Your task to perform on an android device: Go to Maps Image 0: 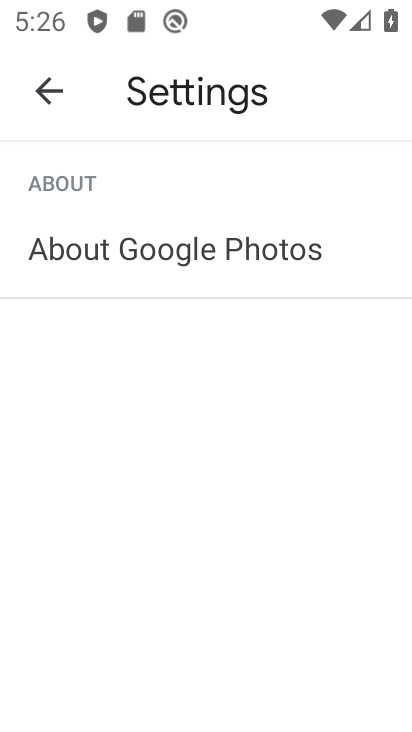
Step 0: press home button
Your task to perform on an android device: Go to Maps Image 1: 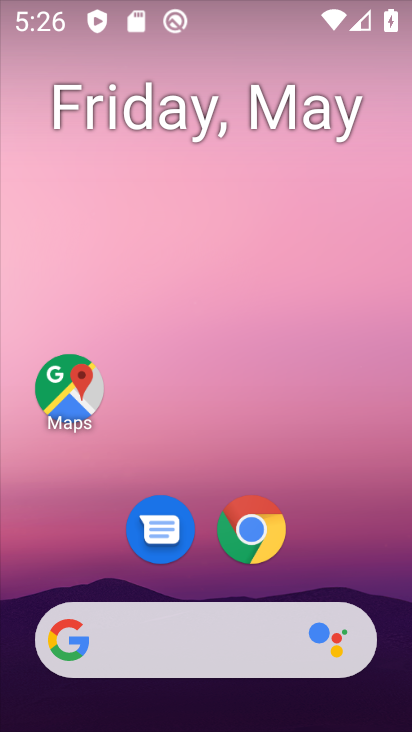
Step 1: click (88, 395)
Your task to perform on an android device: Go to Maps Image 2: 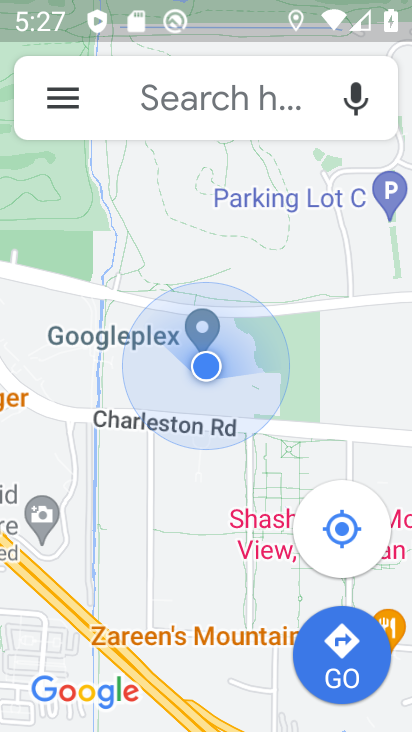
Step 2: task complete